Your task to perform on an android device: Open Android settings Image 0: 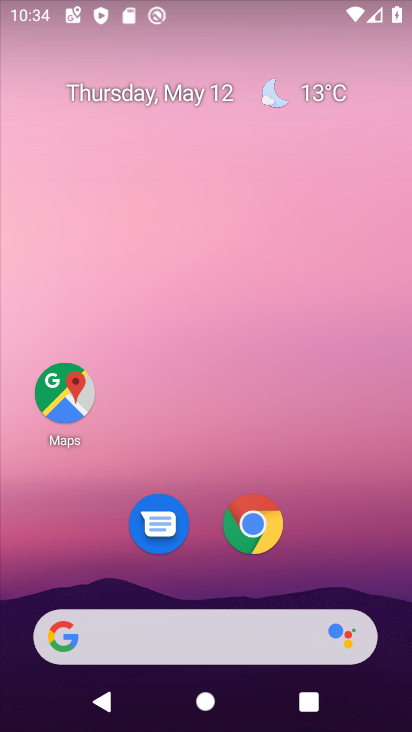
Step 0: drag from (347, 536) to (302, 69)
Your task to perform on an android device: Open Android settings Image 1: 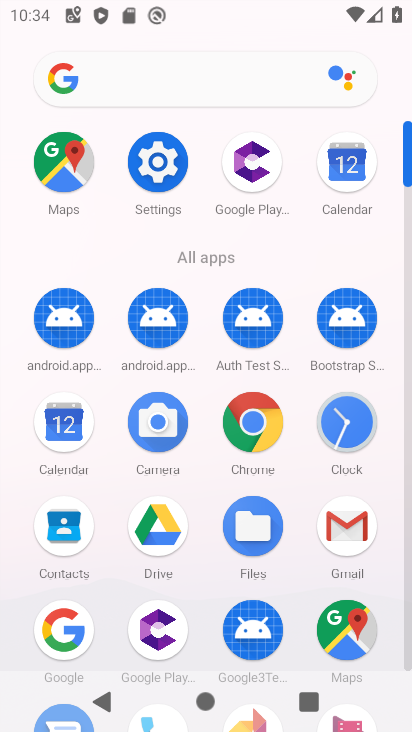
Step 1: click (166, 151)
Your task to perform on an android device: Open Android settings Image 2: 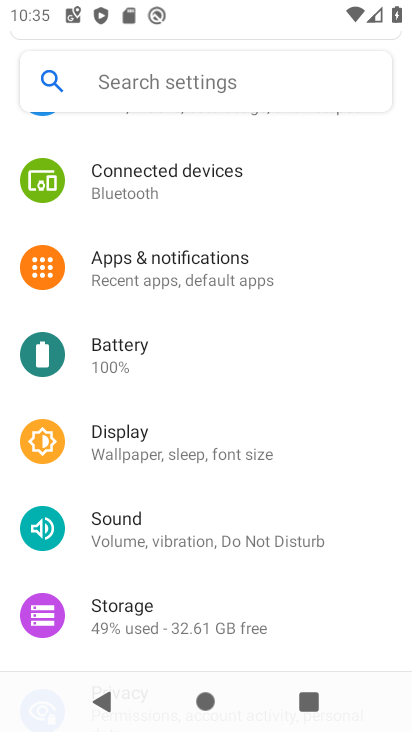
Step 2: drag from (207, 597) to (257, 122)
Your task to perform on an android device: Open Android settings Image 3: 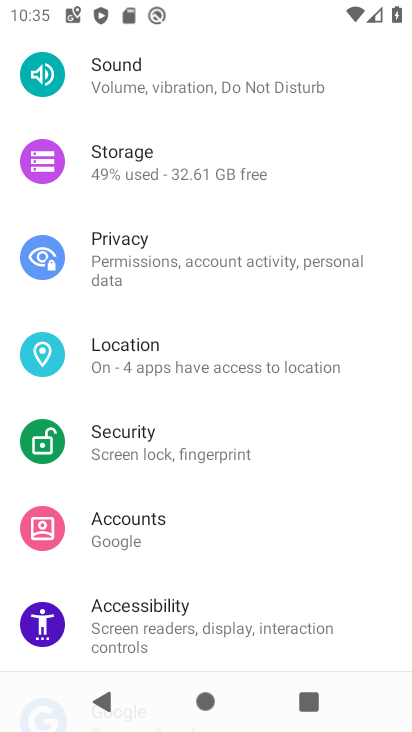
Step 3: drag from (198, 526) to (244, 108)
Your task to perform on an android device: Open Android settings Image 4: 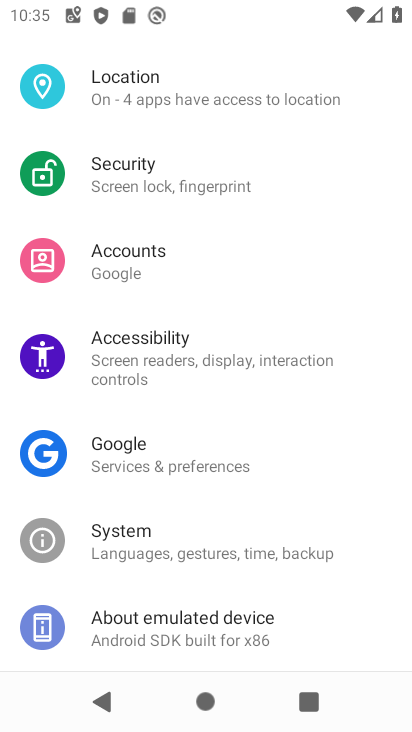
Step 4: drag from (188, 605) to (190, 195)
Your task to perform on an android device: Open Android settings Image 5: 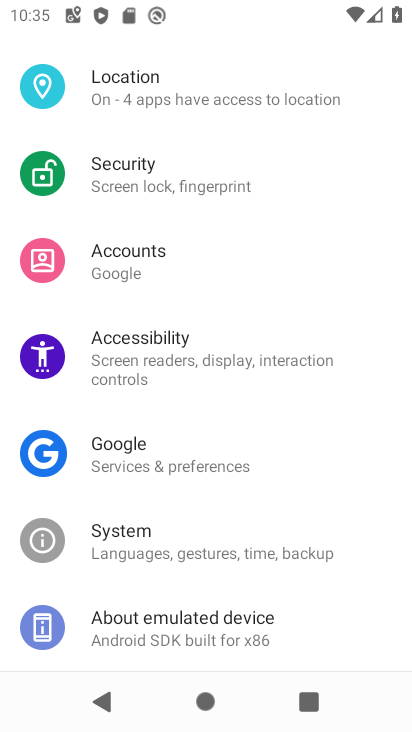
Step 5: click (174, 619)
Your task to perform on an android device: Open Android settings Image 6: 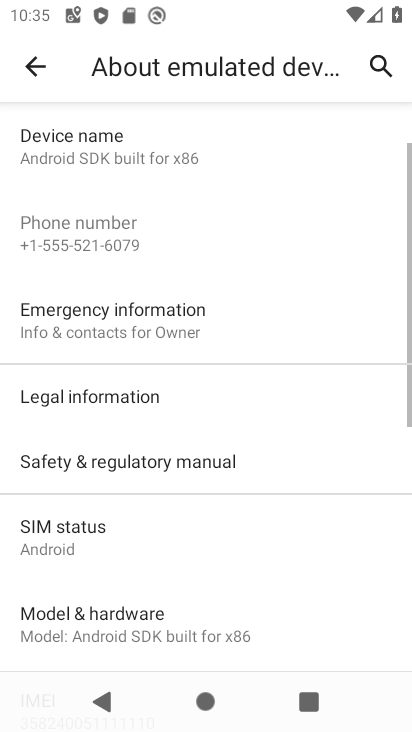
Step 6: task complete